Your task to perform on an android device: Go to Wikipedia Image 0: 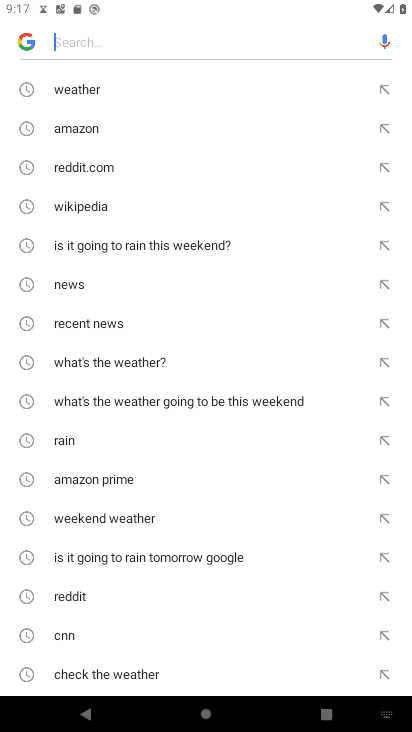
Step 0: press home button
Your task to perform on an android device: Go to Wikipedia Image 1: 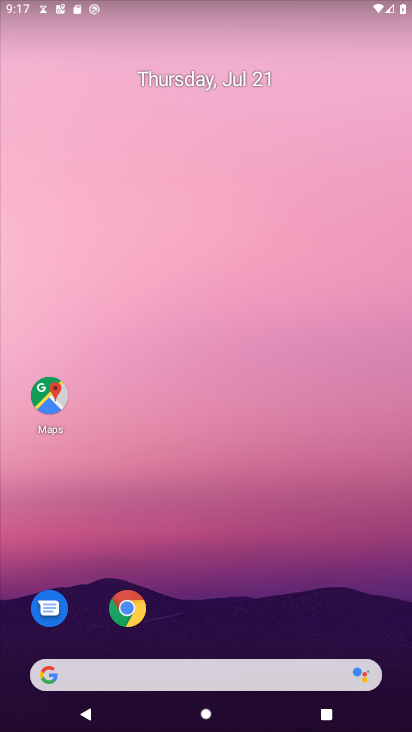
Step 1: click (121, 613)
Your task to perform on an android device: Go to Wikipedia Image 2: 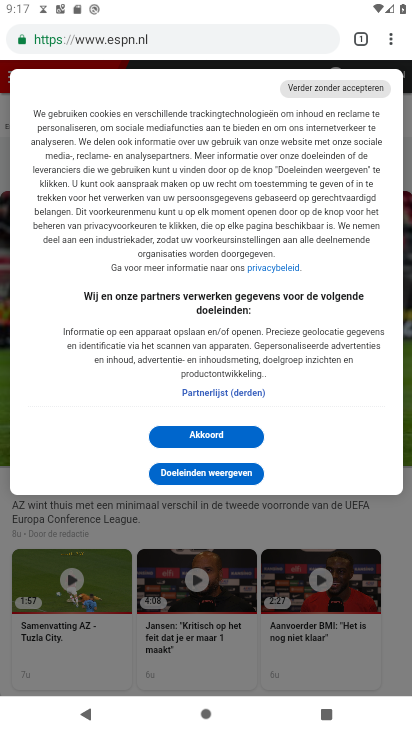
Step 2: click (360, 35)
Your task to perform on an android device: Go to Wikipedia Image 3: 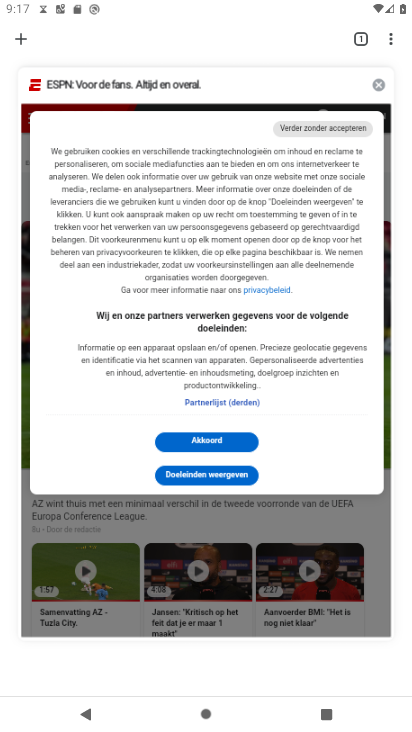
Step 3: click (22, 38)
Your task to perform on an android device: Go to Wikipedia Image 4: 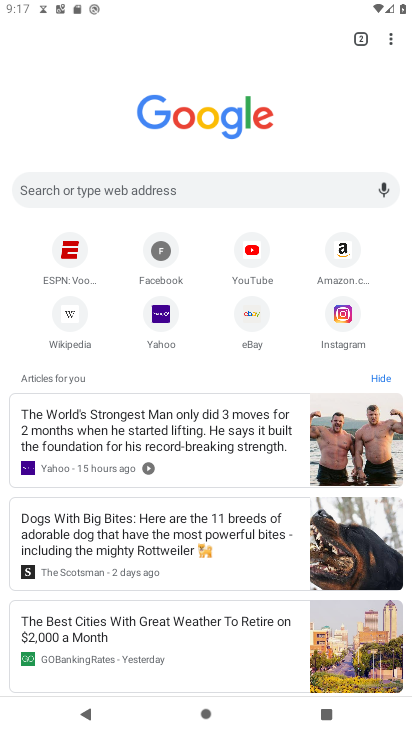
Step 4: click (62, 339)
Your task to perform on an android device: Go to Wikipedia Image 5: 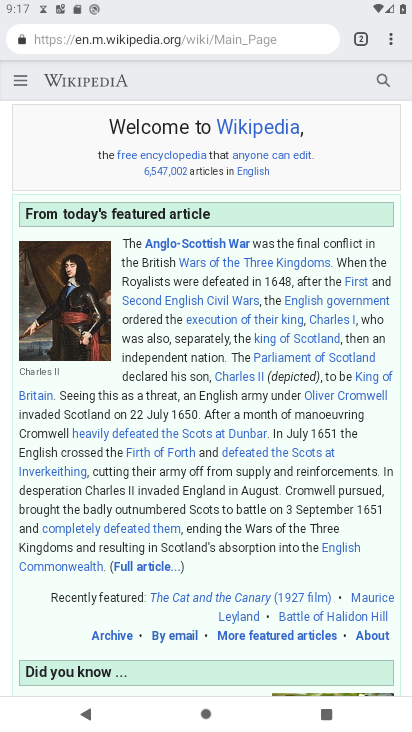
Step 5: task complete